Your task to perform on an android device: Open Chrome and go to the settings page Image 0: 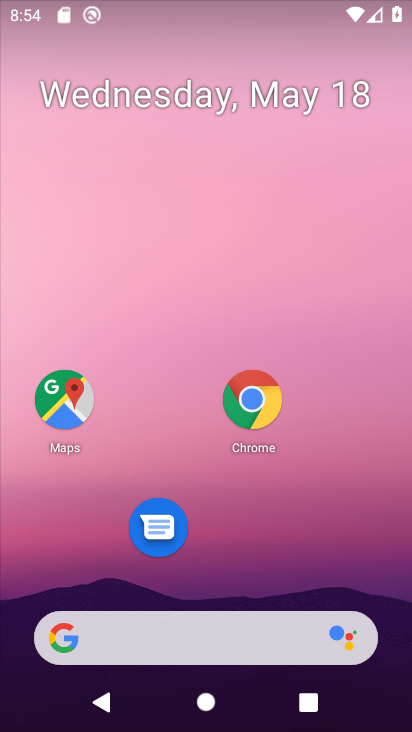
Step 0: click (249, 428)
Your task to perform on an android device: Open Chrome and go to the settings page Image 1: 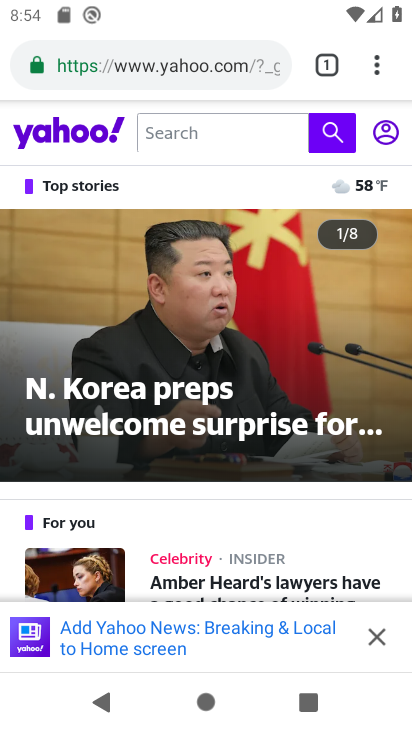
Step 1: click (375, 61)
Your task to perform on an android device: Open Chrome and go to the settings page Image 2: 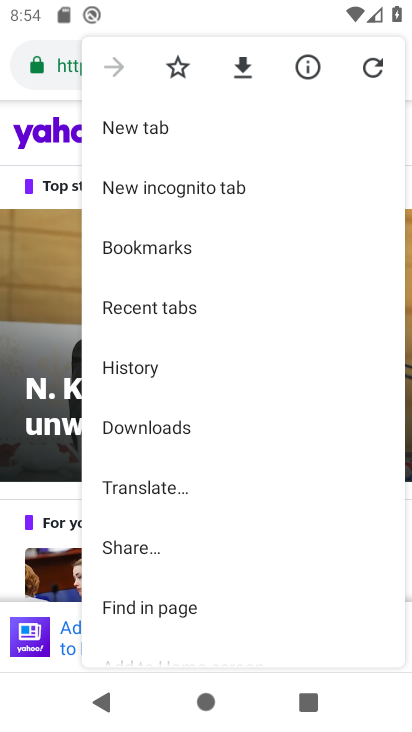
Step 2: drag from (174, 591) to (246, 246)
Your task to perform on an android device: Open Chrome and go to the settings page Image 3: 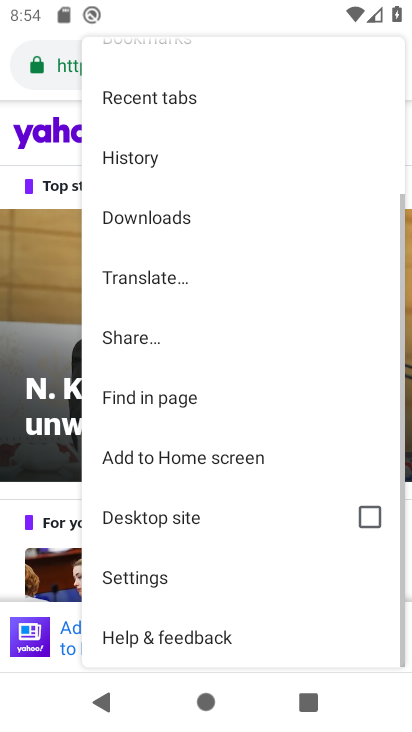
Step 3: click (143, 578)
Your task to perform on an android device: Open Chrome and go to the settings page Image 4: 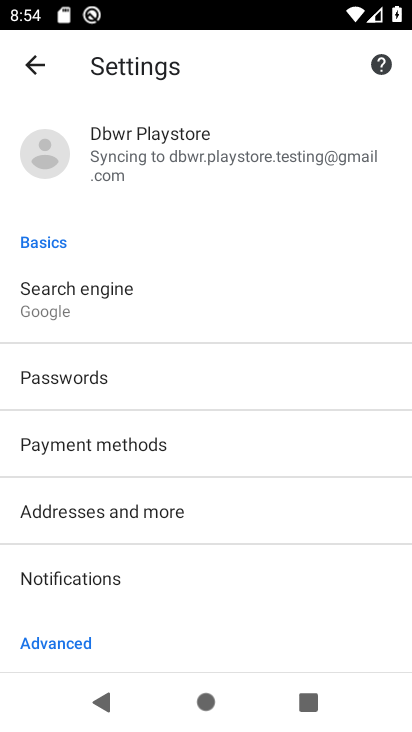
Step 4: task complete